Your task to perform on an android device: change the upload size in google photos Image 0: 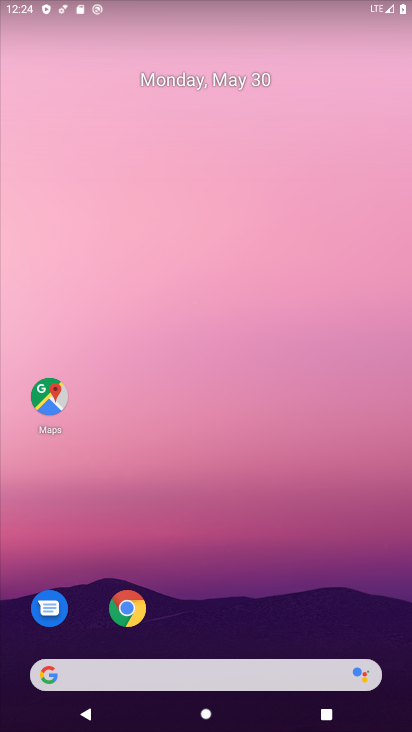
Step 0: drag from (223, 637) to (245, 1)
Your task to perform on an android device: change the upload size in google photos Image 1: 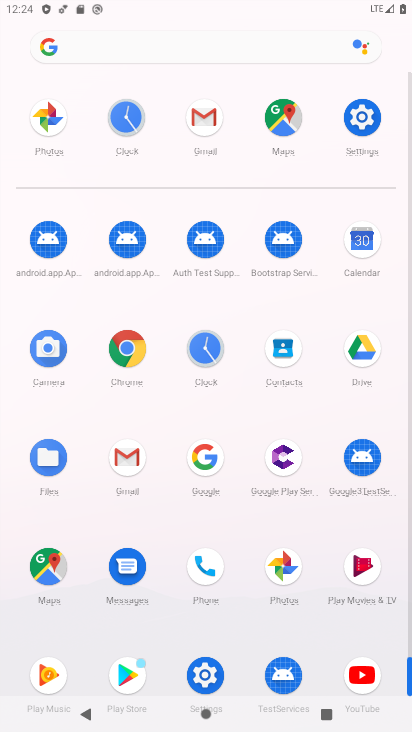
Step 1: click (271, 578)
Your task to perform on an android device: change the upload size in google photos Image 2: 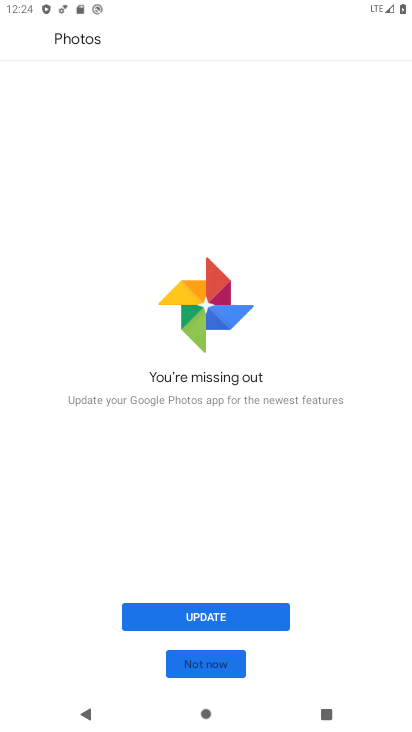
Step 2: click (222, 666)
Your task to perform on an android device: change the upload size in google photos Image 3: 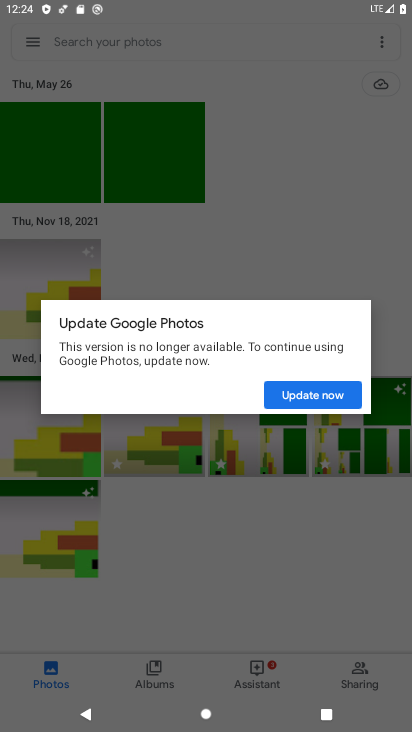
Step 3: click (341, 400)
Your task to perform on an android device: change the upload size in google photos Image 4: 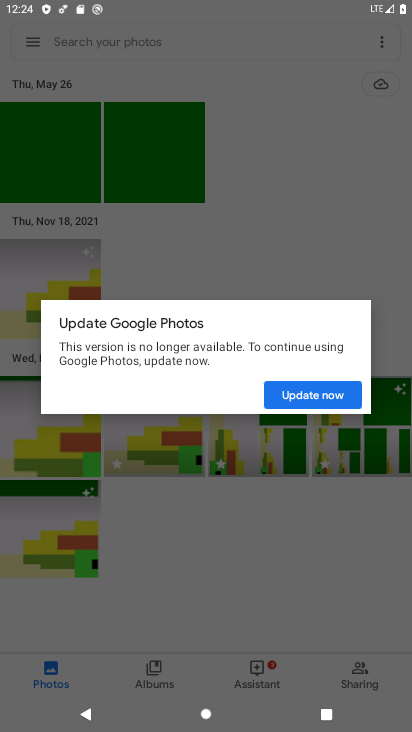
Step 4: click (338, 392)
Your task to perform on an android device: change the upload size in google photos Image 5: 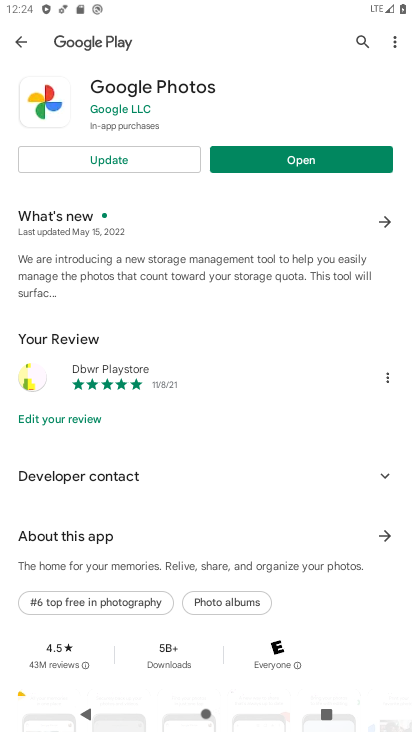
Step 5: click (332, 166)
Your task to perform on an android device: change the upload size in google photos Image 6: 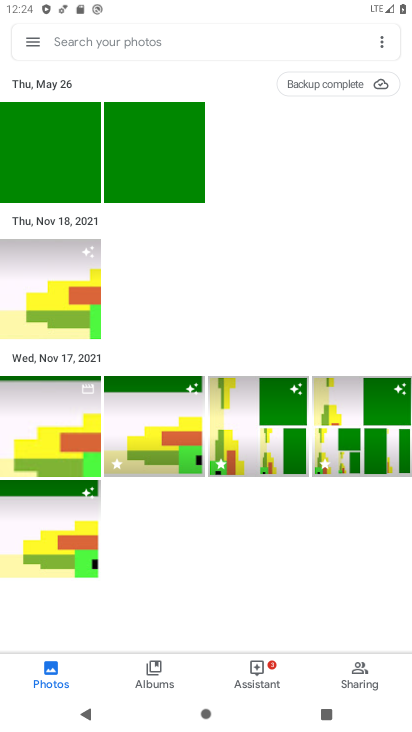
Step 6: click (30, 43)
Your task to perform on an android device: change the upload size in google photos Image 7: 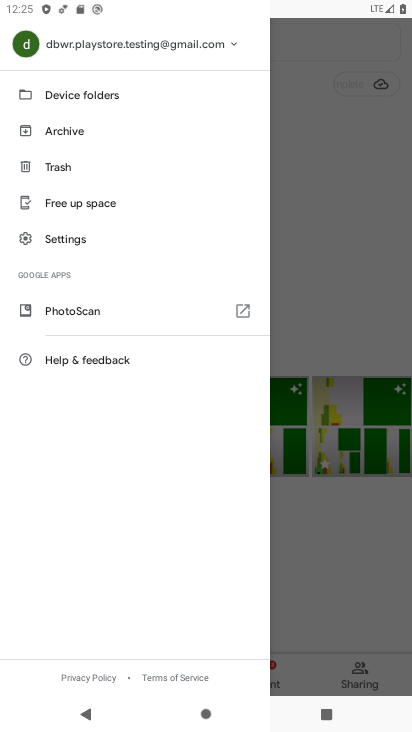
Step 7: click (89, 243)
Your task to perform on an android device: change the upload size in google photos Image 8: 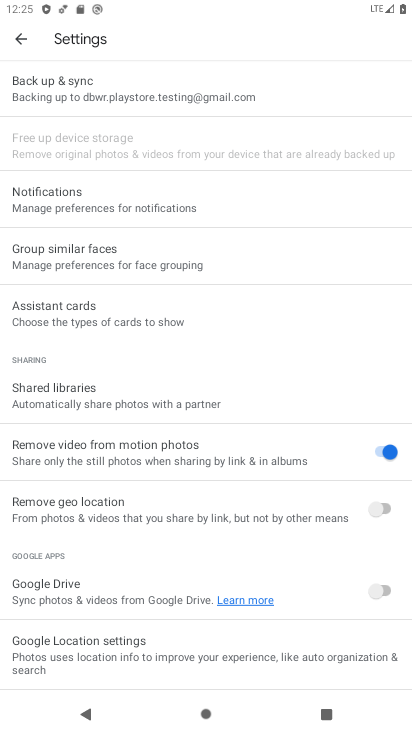
Step 8: click (168, 83)
Your task to perform on an android device: change the upload size in google photos Image 9: 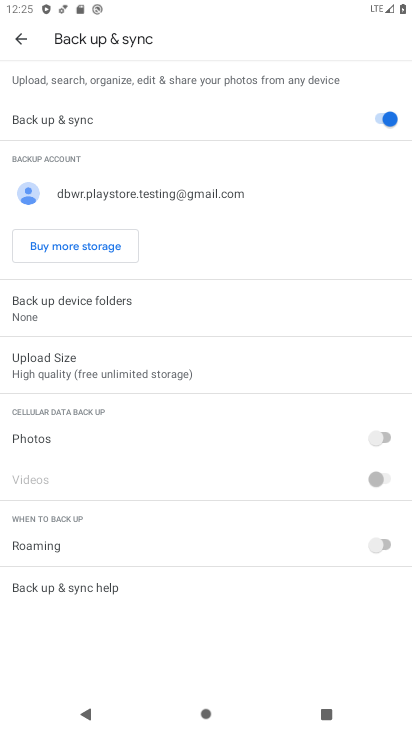
Step 9: click (202, 367)
Your task to perform on an android device: change the upload size in google photos Image 10: 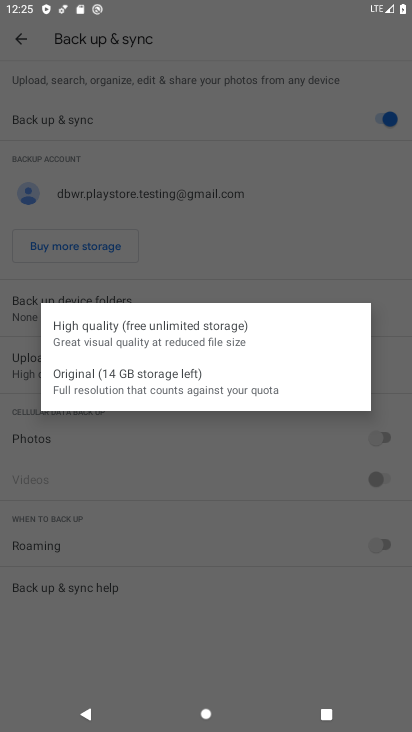
Step 10: click (192, 379)
Your task to perform on an android device: change the upload size in google photos Image 11: 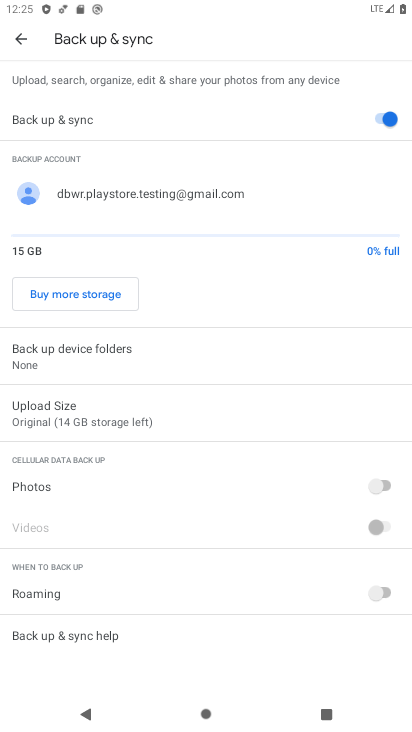
Step 11: task complete